Your task to perform on an android device: check the backup settings in the google photos Image 0: 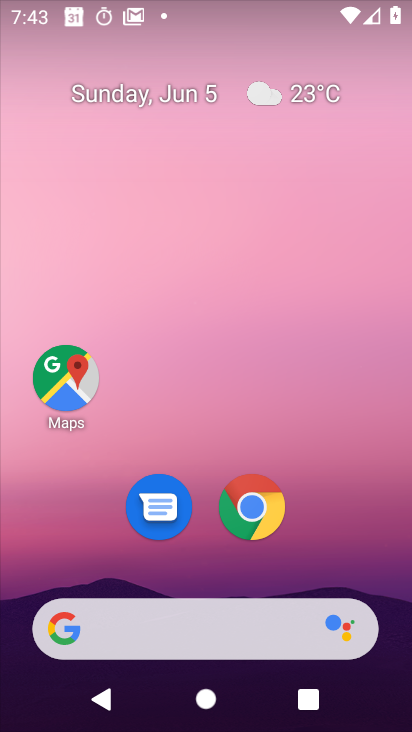
Step 0: drag from (286, 528) to (229, 67)
Your task to perform on an android device: check the backup settings in the google photos Image 1: 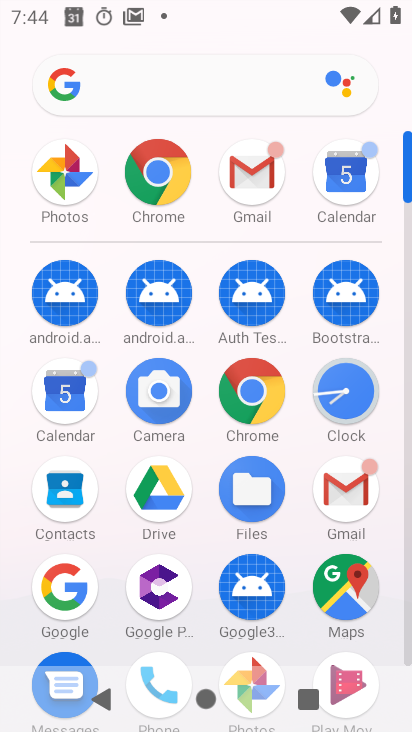
Step 1: click (241, 652)
Your task to perform on an android device: check the backup settings in the google photos Image 2: 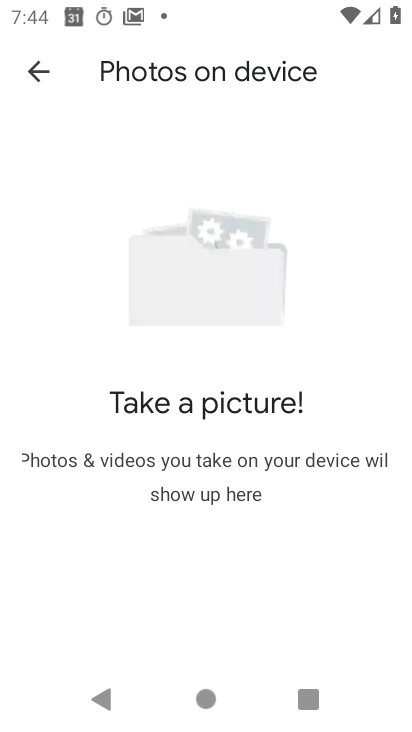
Step 2: click (37, 60)
Your task to perform on an android device: check the backup settings in the google photos Image 3: 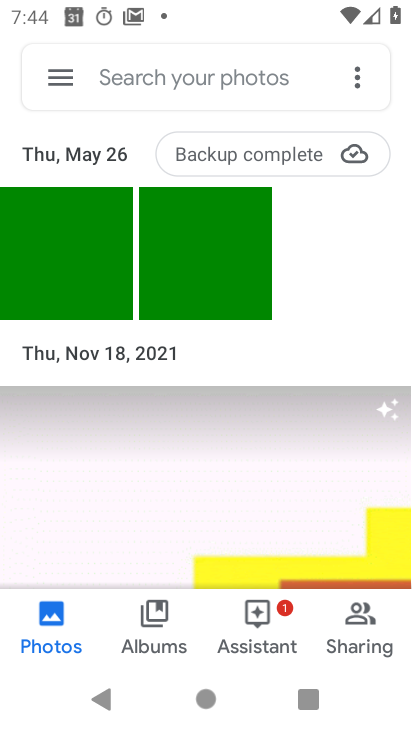
Step 3: click (56, 83)
Your task to perform on an android device: check the backup settings in the google photos Image 4: 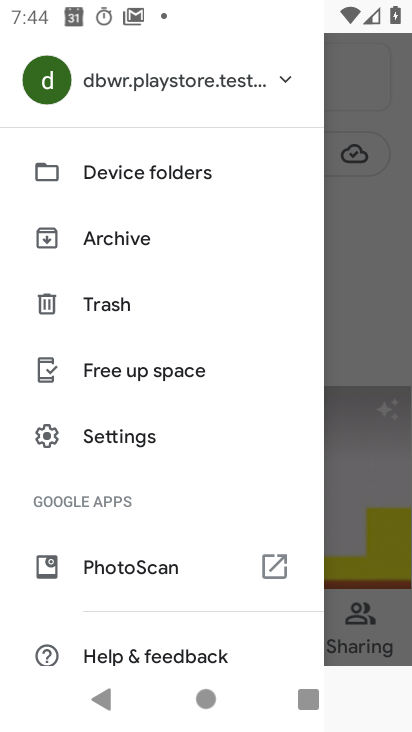
Step 4: click (141, 442)
Your task to perform on an android device: check the backup settings in the google photos Image 5: 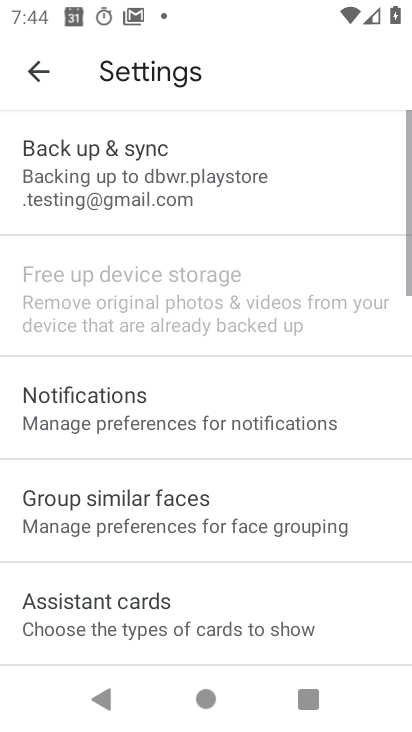
Step 5: click (100, 146)
Your task to perform on an android device: check the backup settings in the google photos Image 6: 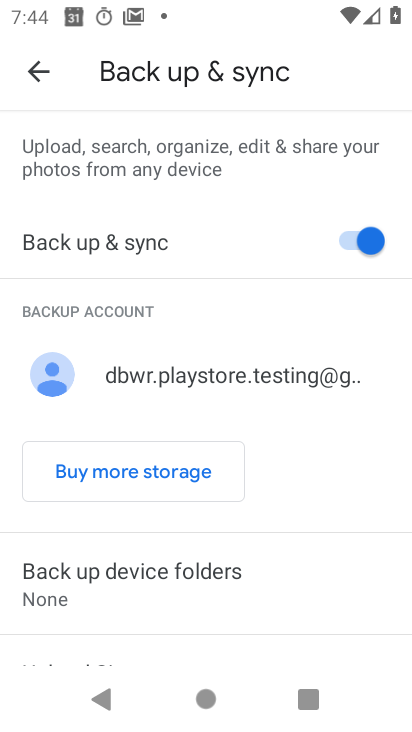
Step 6: task complete